Your task to perform on an android device: Open accessibility settings Image 0: 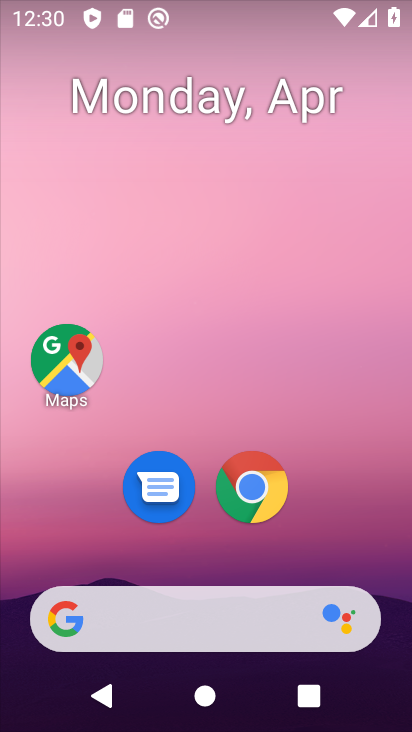
Step 0: drag from (396, 624) to (307, 54)
Your task to perform on an android device: Open accessibility settings Image 1: 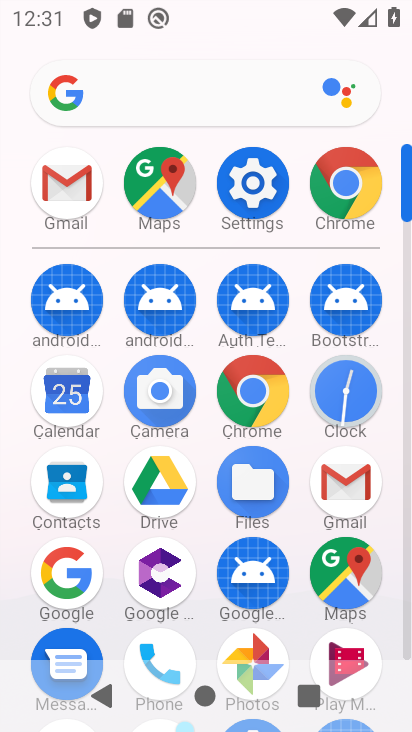
Step 1: click (243, 168)
Your task to perform on an android device: Open accessibility settings Image 2: 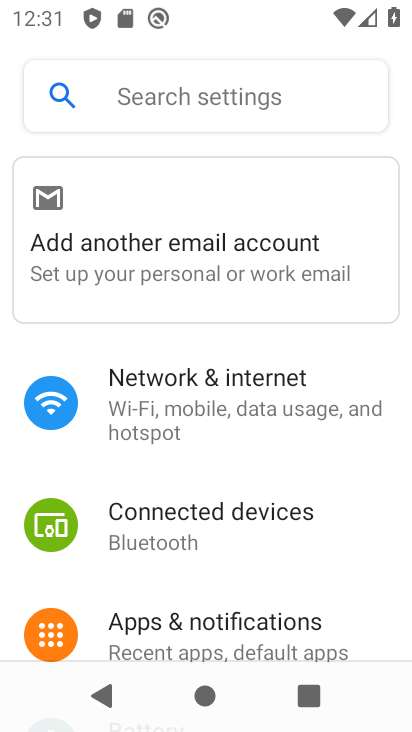
Step 2: drag from (165, 639) to (210, 89)
Your task to perform on an android device: Open accessibility settings Image 3: 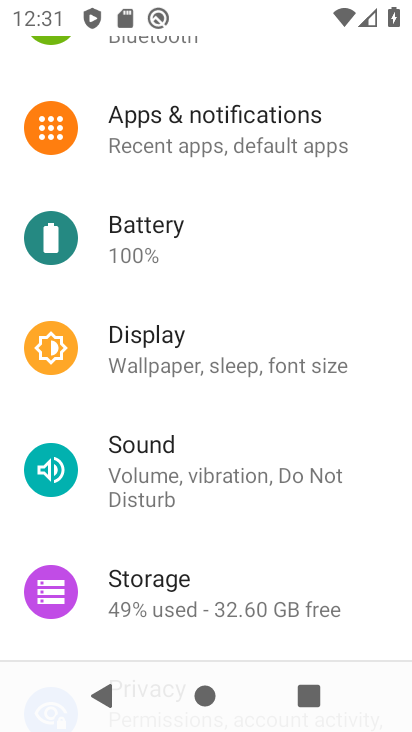
Step 3: drag from (172, 573) to (238, 146)
Your task to perform on an android device: Open accessibility settings Image 4: 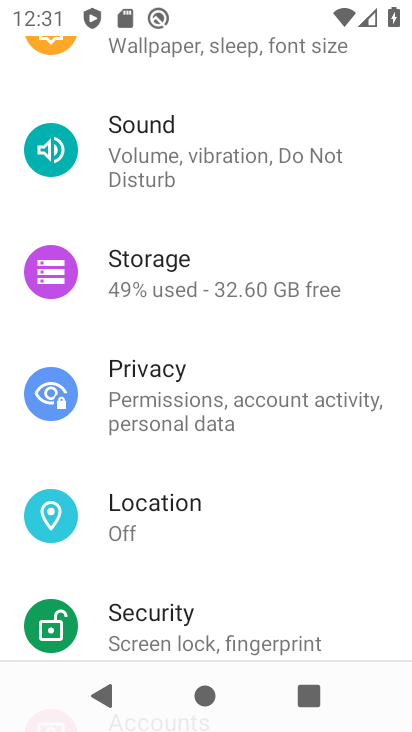
Step 4: drag from (171, 598) to (215, 178)
Your task to perform on an android device: Open accessibility settings Image 5: 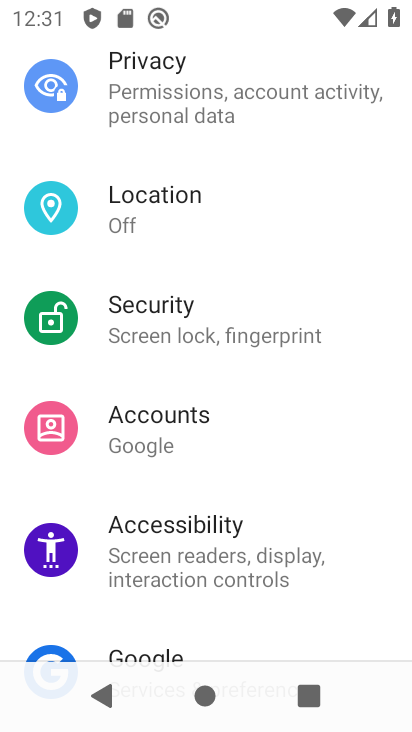
Step 5: click (204, 554)
Your task to perform on an android device: Open accessibility settings Image 6: 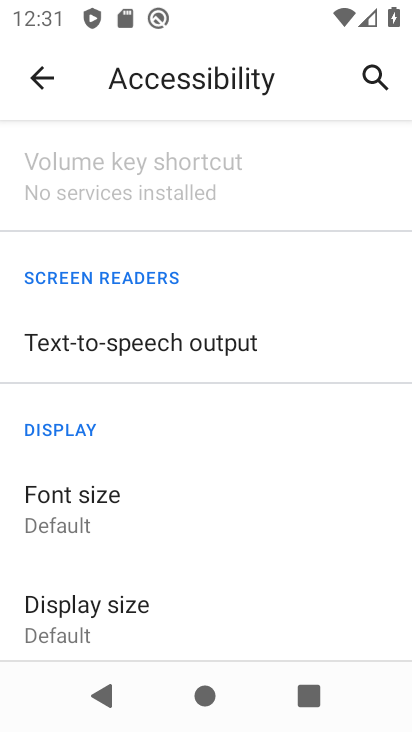
Step 6: task complete